Your task to perform on an android device: empty trash in google photos Image 0: 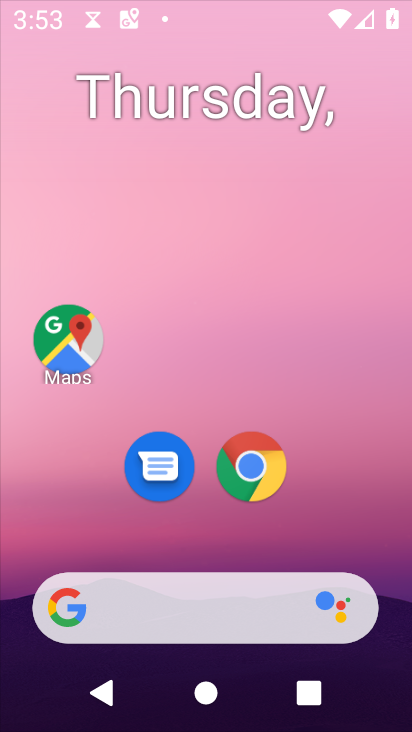
Step 0: drag from (288, 593) to (315, 0)
Your task to perform on an android device: empty trash in google photos Image 1: 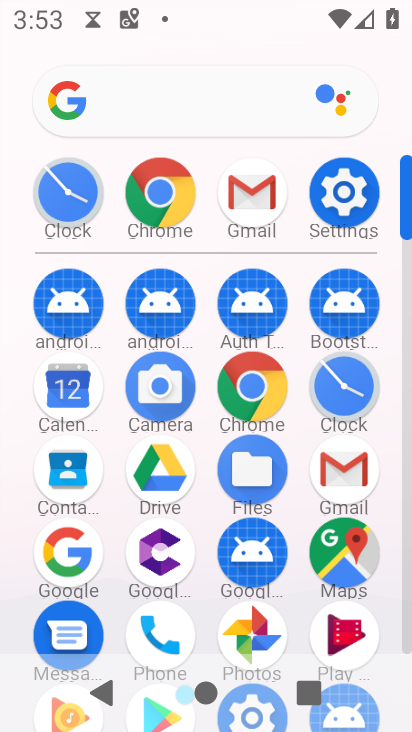
Step 1: click (258, 633)
Your task to perform on an android device: empty trash in google photos Image 2: 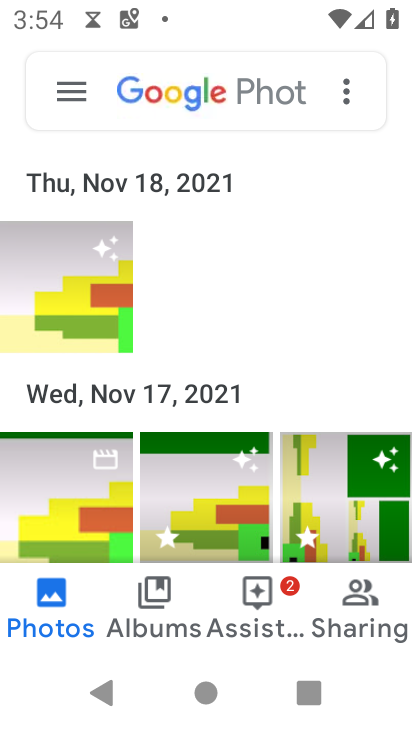
Step 2: click (76, 96)
Your task to perform on an android device: empty trash in google photos Image 3: 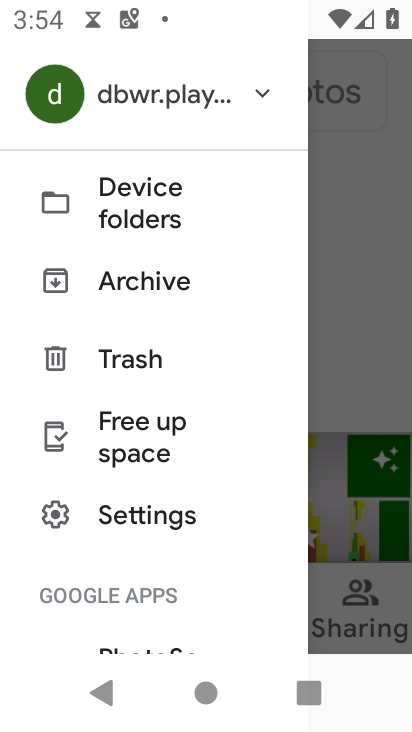
Step 3: click (149, 358)
Your task to perform on an android device: empty trash in google photos Image 4: 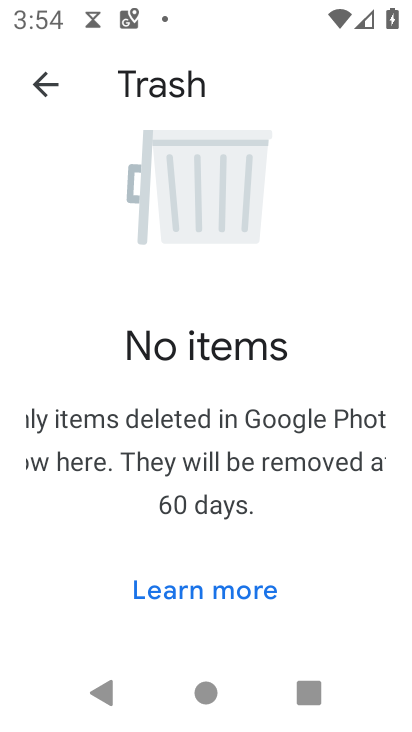
Step 4: task complete